Your task to perform on an android device: turn off picture-in-picture Image 0: 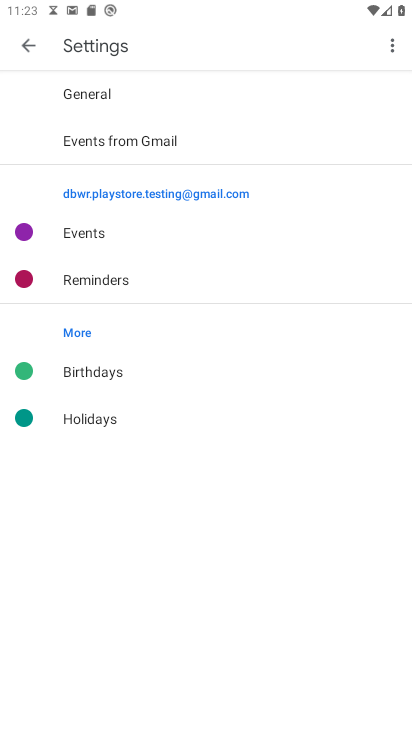
Step 0: press home button
Your task to perform on an android device: turn off picture-in-picture Image 1: 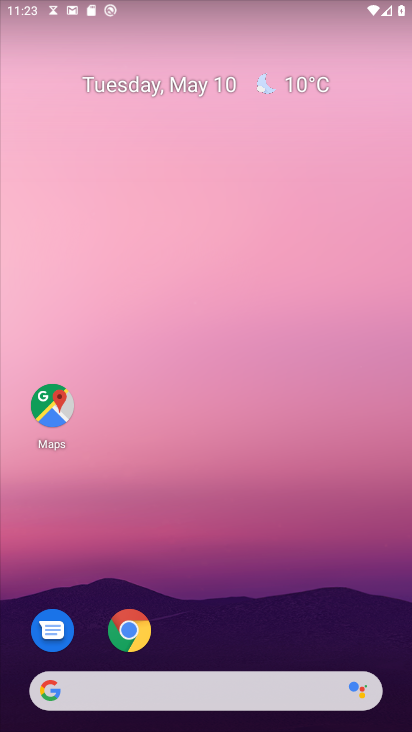
Step 1: click (132, 630)
Your task to perform on an android device: turn off picture-in-picture Image 2: 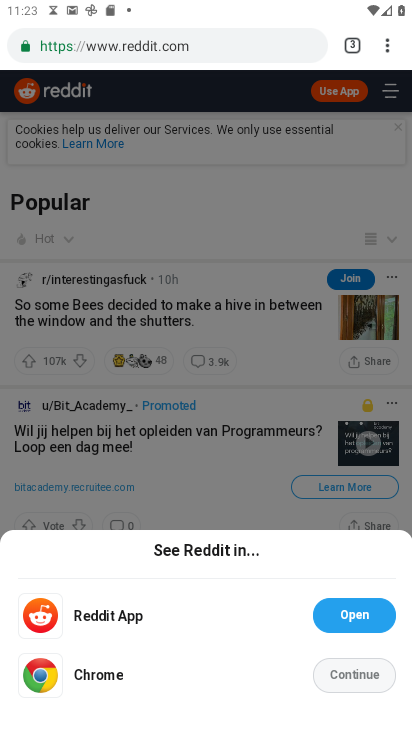
Step 2: click (383, 37)
Your task to perform on an android device: turn off picture-in-picture Image 3: 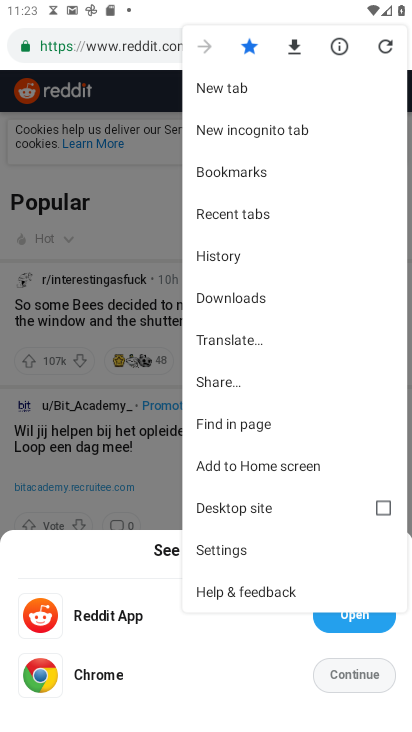
Step 3: click (243, 547)
Your task to perform on an android device: turn off picture-in-picture Image 4: 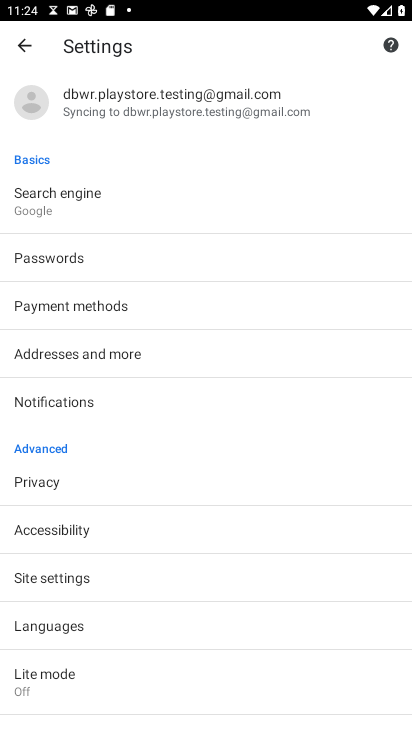
Step 4: click (77, 571)
Your task to perform on an android device: turn off picture-in-picture Image 5: 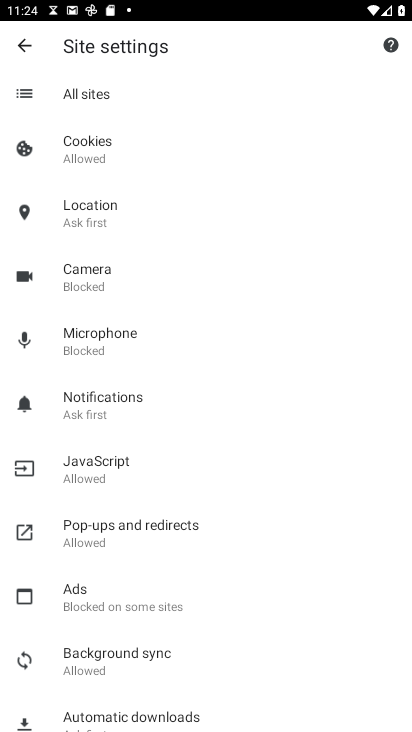
Step 5: click (30, 37)
Your task to perform on an android device: turn off picture-in-picture Image 6: 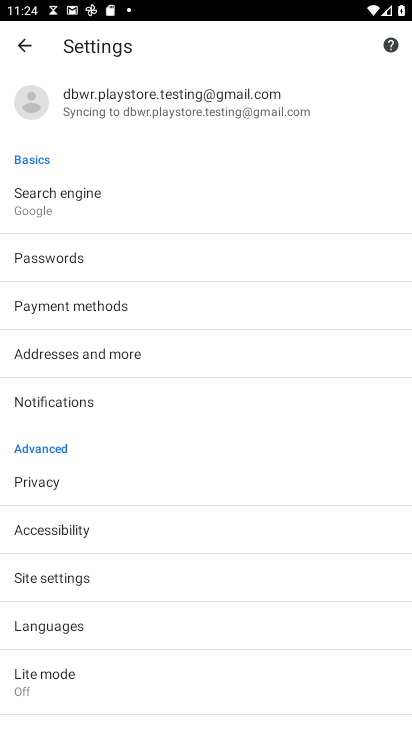
Step 6: drag from (150, 642) to (214, 582)
Your task to perform on an android device: turn off picture-in-picture Image 7: 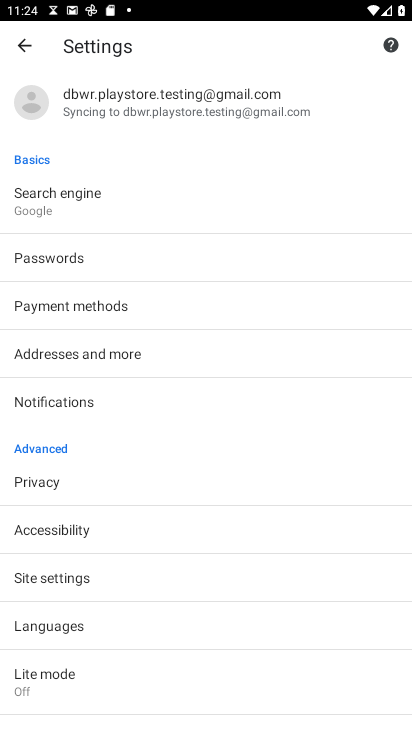
Step 7: click (30, 45)
Your task to perform on an android device: turn off picture-in-picture Image 8: 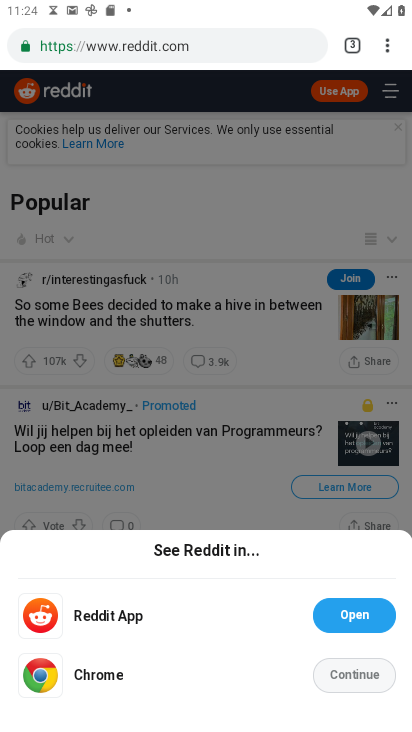
Step 8: press home button
Your task to perform on an android device: turn off picture-in-picture Image 9: 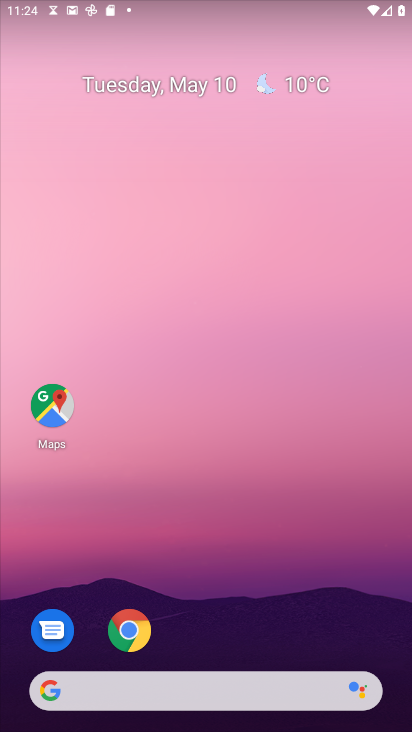
Step 9: drag from (258, 596) to (241, 77)
Your task to perform on an android device: turn off picture-in-picture Image 10: 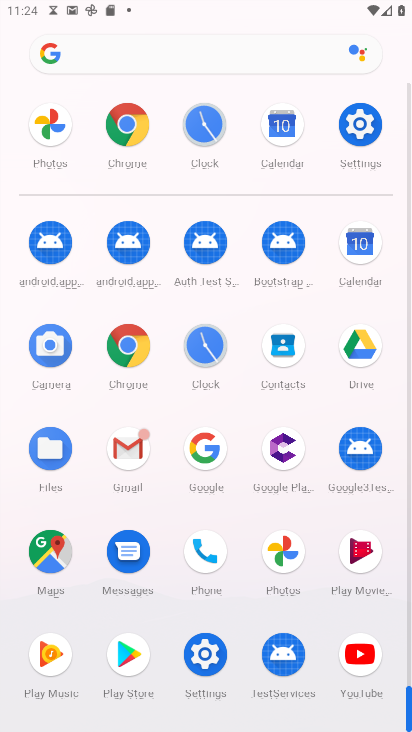
Step 10: click (358, 116)
Your task to perform on an android device: turn off picture-in-picture Image 11: 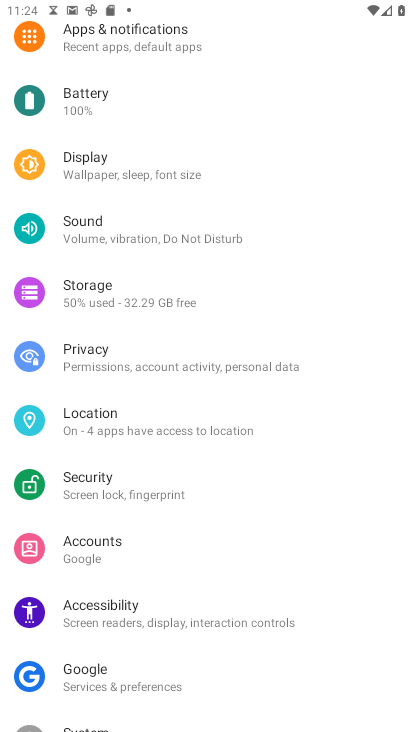
Step 11: drag from (279, 675) to (303, 222)
Your task to perform on an android device: turn off picture-in-picture Image 12: 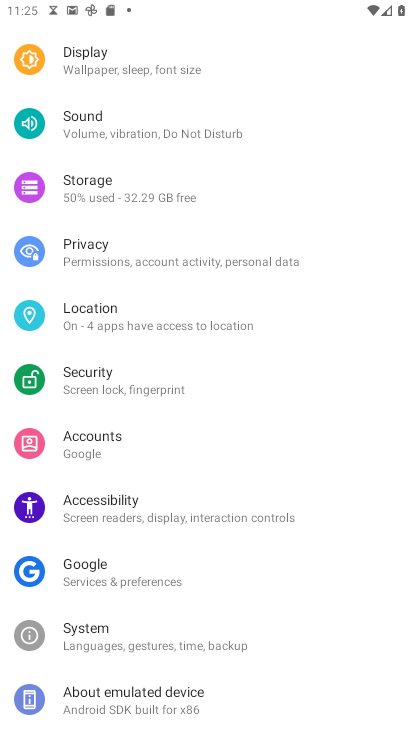
Step 12: drag from (318, 151) to (301, 363)
Your task to perform on an android device: turn off picture-in-picture Image 13: 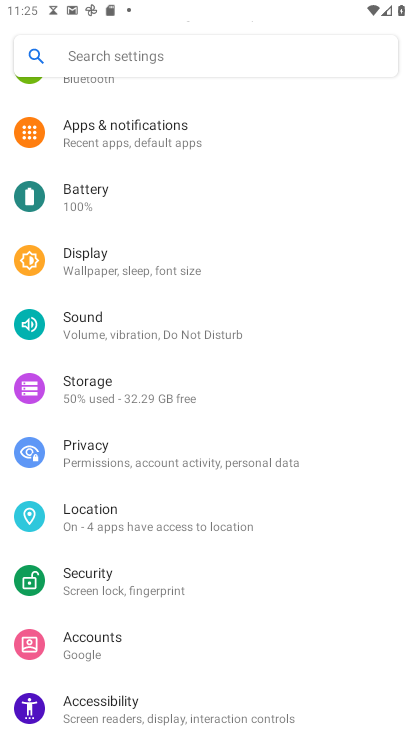
Step 13: click (126, 132)
Your task to perform on an android device: turn off picture-in-picture Image 14: 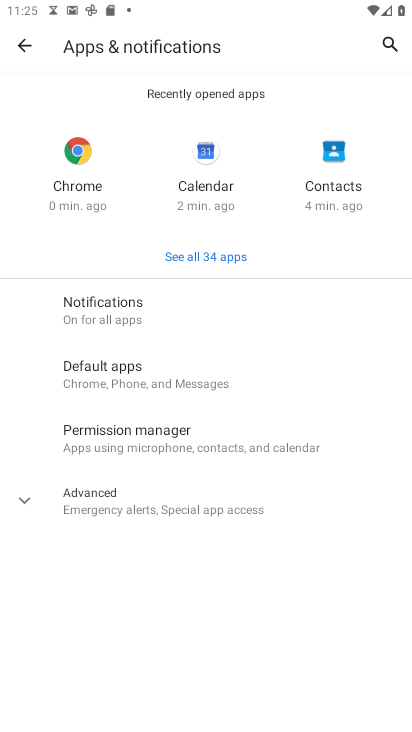
Step 14: click (203, 508)
Your task to perform on an android device: turn off picture-in-picture Image 15: 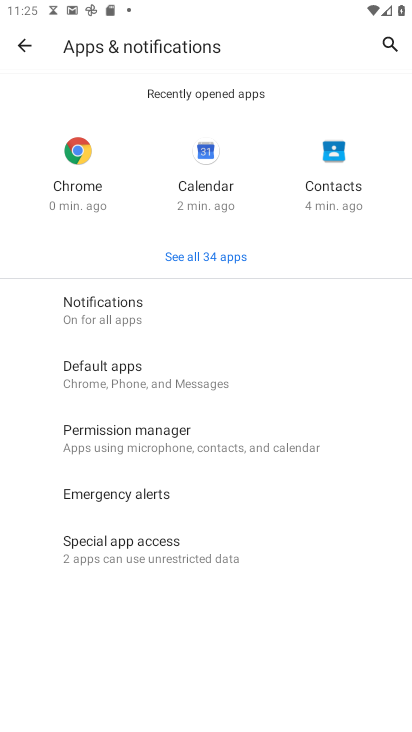
Step 15: click (186, 558)
Your task to perform on an android device: turn off picture-in-picture Image 16: 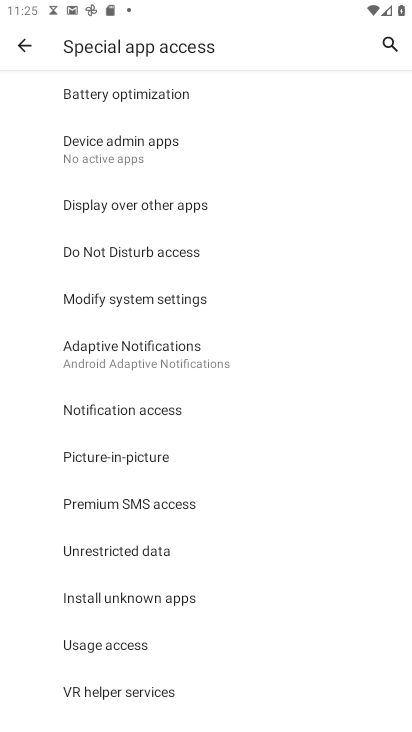
Step 16: click (141, 456)
Your task to perform on an android device: turn off picture-in-picture Image 17: 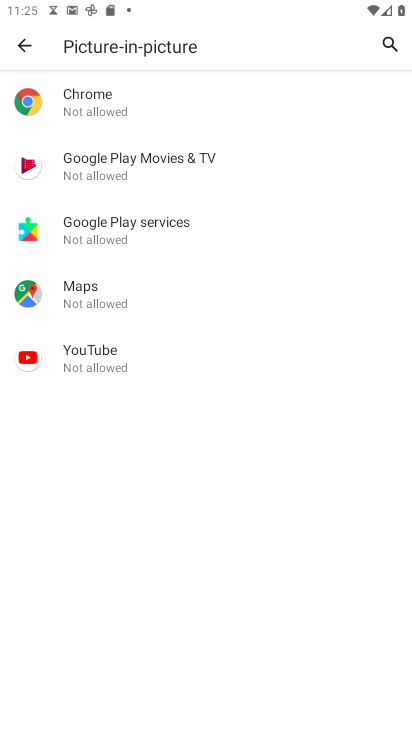
Step 17: task complete